Your task to perform on an android device: open app "Reddit" (install if not already installed) and enter user name: "issues@yahoo.com" and password: "belt" Image 0: 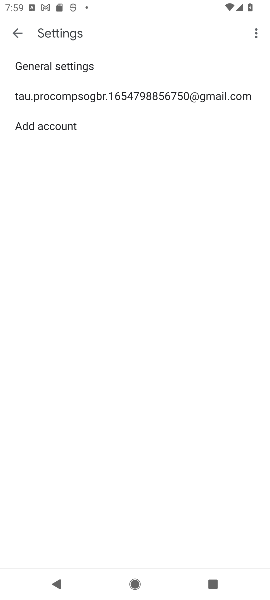
Step 0: press home button
Your task to perform on an android device: open app "Reddit" (install if not already installed) and enter user name: "issues@yahoo.com" and password: "belt" Image 1: 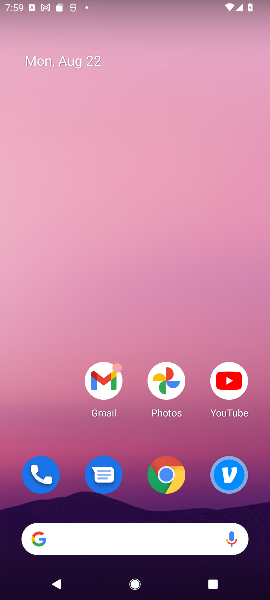
Step 1: drag from (121, 489) to (129, 39)
Your task to perform on an android device: open app "Reddit" (install if not already installed) and enter user name: "issues@yahoo.com" and password: "belt" Image 2: 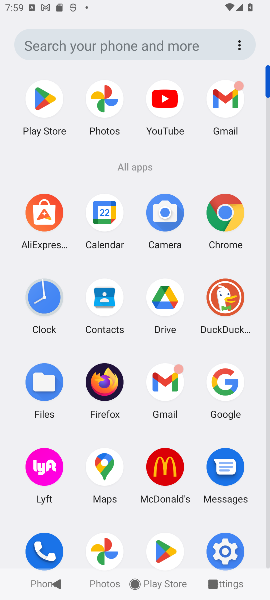
Step 2: click (45, 115)
Your task to perform on an android device: open app "Reddit" (install if not already installed) and enter user name: "issues@yahoo.com" and password: "belt" Image 3: 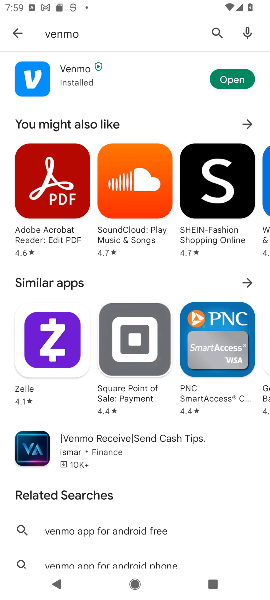
Step 3: click (107, 36)
Your task to perform on an android device: open app "Reddit" (install if not already installed) and enter user name: "issues@yahoo.com" and password: "belt" Image 4: 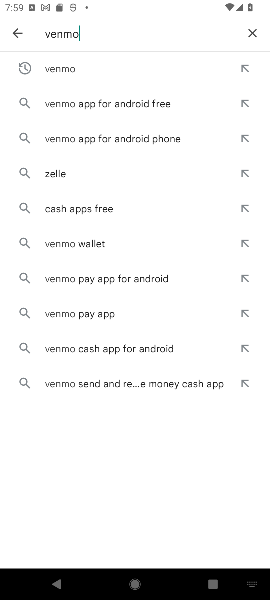
Step 4: click (250, 28)
Your task to perform on an android device: open app "Reddit" (install if not already installed) and enter user name: "issues@yahoo.com" and password: "belt" Image 5: 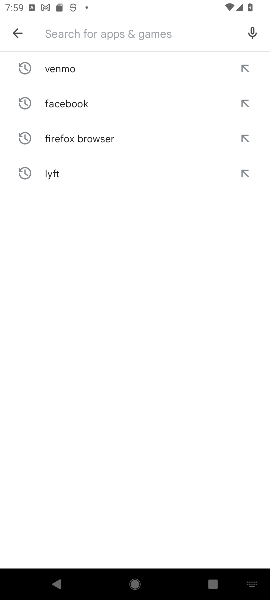
Step 5: type "Reddit"
Your task to perform on an android device: open app "Reddit" (install if not already installed) and enter user name: "issues@yahoo.com" and password: "belt" Image 6: 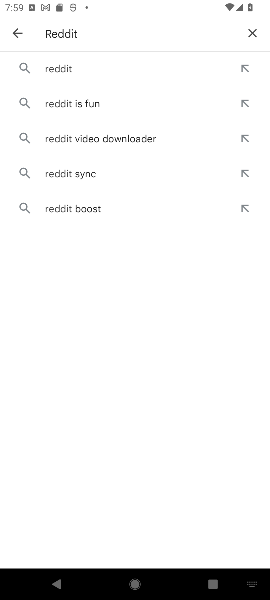
Step 6: click (65, 66)
Your task to perform on an android device: open app "Reddit" (install if not already installed) and enter user name: "issues@yahoo.com" and password: "belt" Image 7: 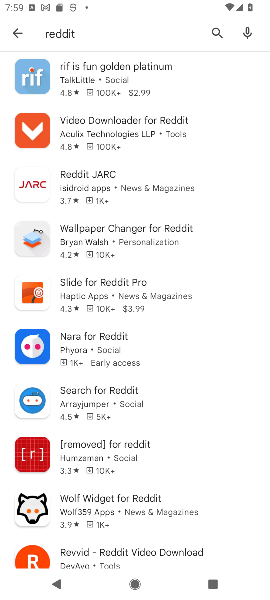
Step 7: task complete